Your task to perform on an android device: Search for vegetarian restaurants on Maps Image 0: 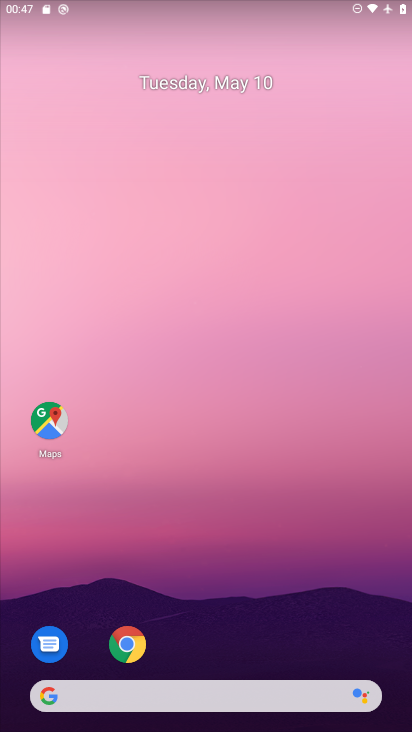
Step 0: click (61, 437)
Your task to perform on an android device: Search for vegetarian restaurants on Maps Image 1: 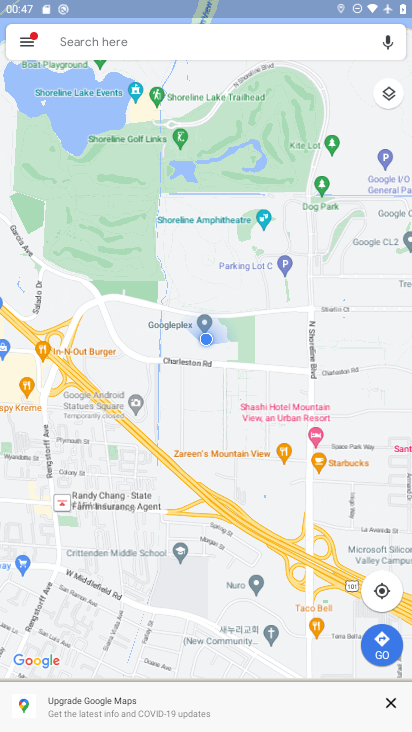
Step 1: click (153, 39)
Your task to perform on an android device: Search for vegetarian restaurants on Maps Image 2: 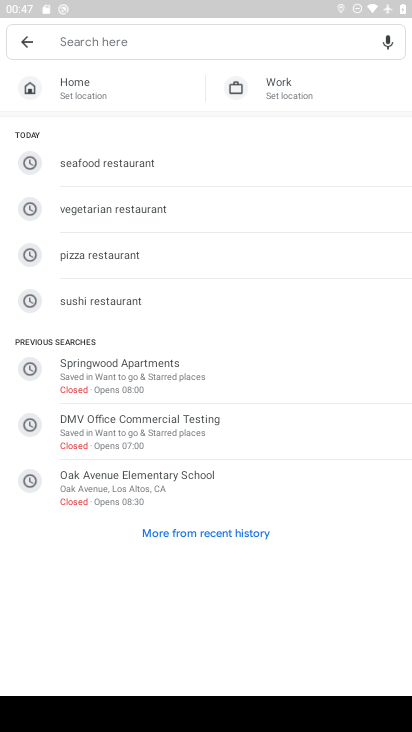
Step 2: type "vegetarian restaurants"
Your task to perform on an android device: Search for vegetarian restaurants on Maps Image 3: 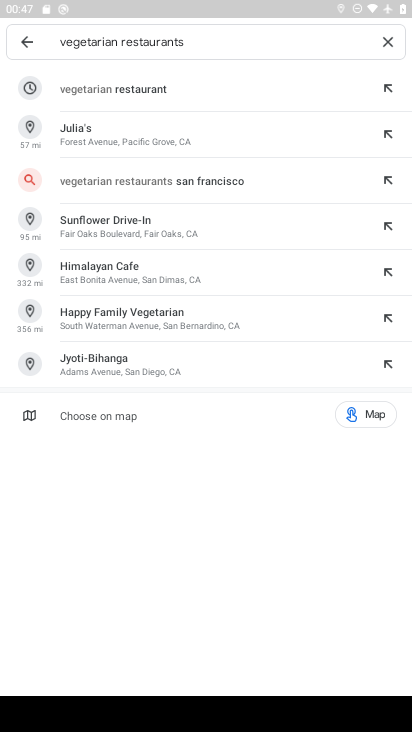
Step 3: click (105, 95)
Your task to perform on an android device: Search for vegetarian restaurants on Maps Image 4: 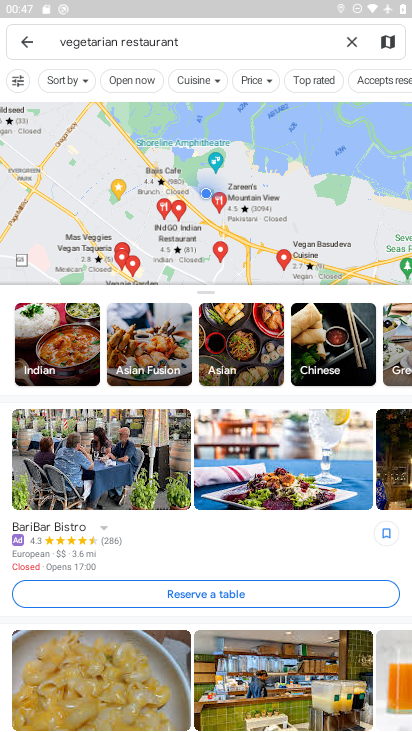
Step 4: task complete